Your task to perform on an android device: delete the emails in spam in the gmail app Image 0: 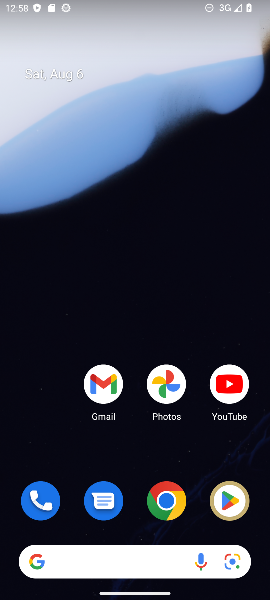
Step 0: click (98, 389)
Your task to perform on an android device: delete the emails in spam in the gmail app Image 1: 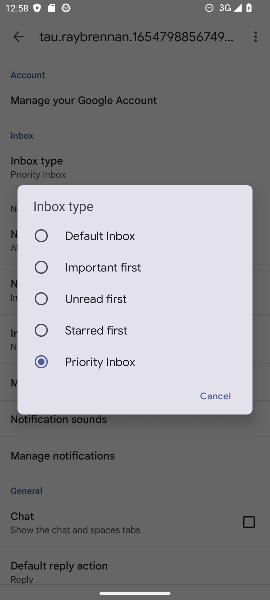
Step 1: click (220, 390)
Your task to perform on an android device: delete the emails in spam in the gmail app Image 2: 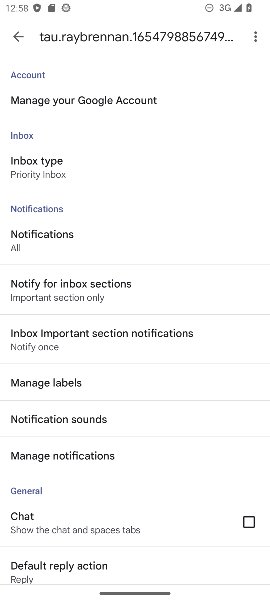
Step 2: click (19, 35)
Your task to perform on an android device: delete the emails in spam in the gmail app Image 3: 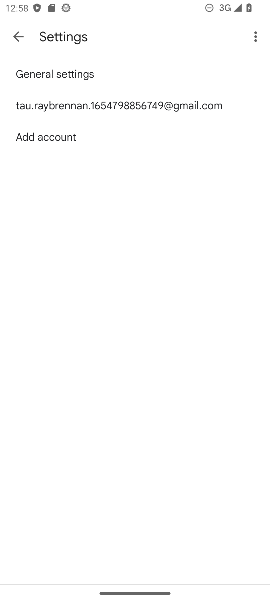
Step 3: click (22, 40)
Your task to perform on an android device: delete the emails in spam in the gmail app Image 4: 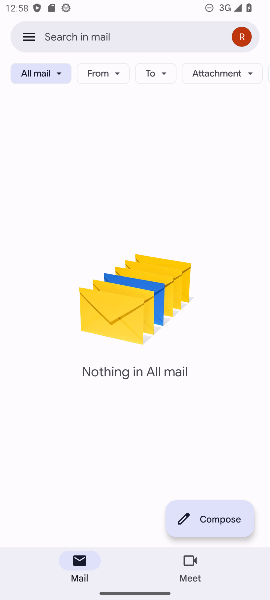
Step 4: task complete